Your task to perform on an android device: Open Chrome and go to the settings page Image 0: 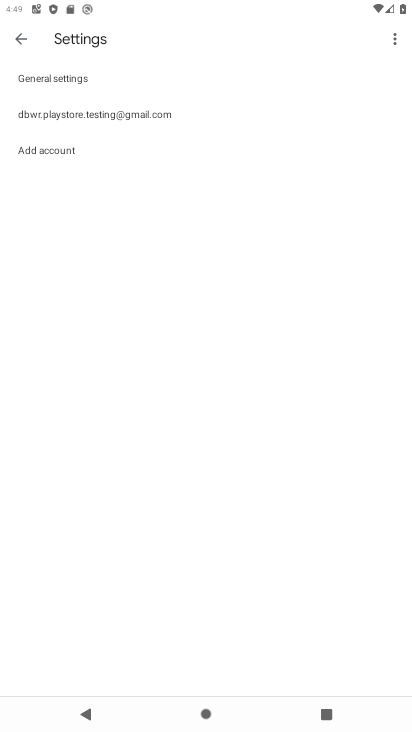
Step 0: press home button
Your task to perform on an android device: Open Chrome and go to the settings page Image 1: 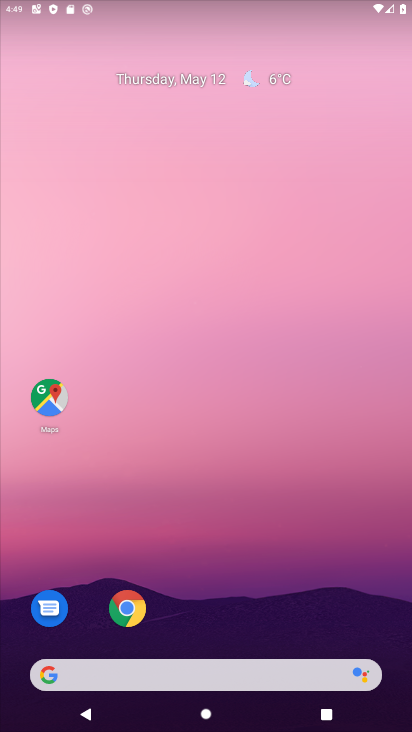
Step 1: click (127, 602)
Your task to perform on an android device: Open Chrome and go to the settings page Image 2: 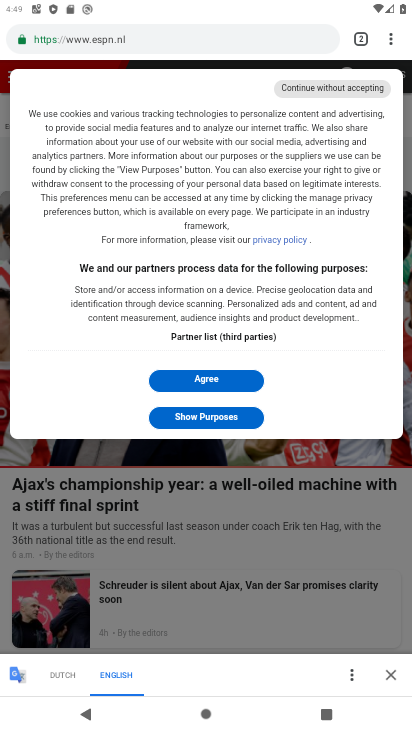
Step 2: click (391, 35)
Your task to perform on an android device: Open Chrome and go to the settings page Image 3: 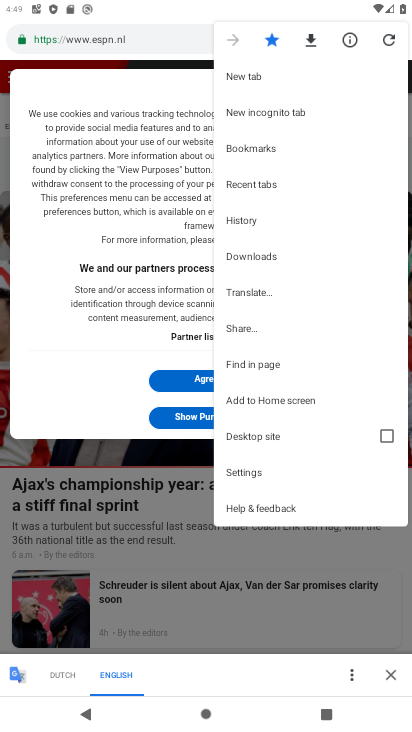
Step 3: click (256, 477)
Your task to perform on an android device: Open Chrome and go to the settings page Image 4: 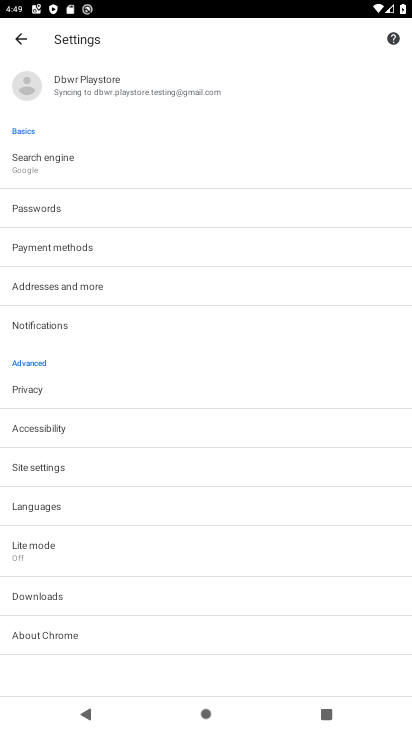
Step 4: task complete